Your task to perform on an android device: Open the calendar app, open the side menu, and click the "Day" option Image 0: 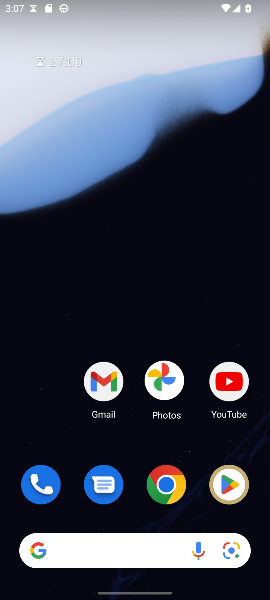
Step 0: press home button
Your task to perform on an android device: Open the calendar app, open the side menu, and click the "Day" option Image 1: 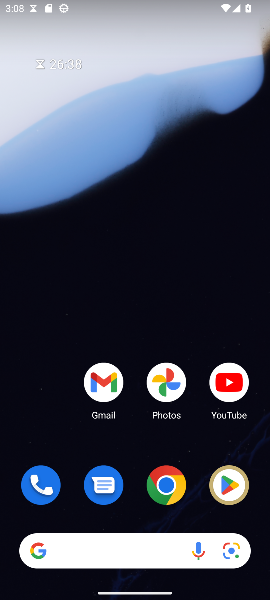
Step 1: drag from (141, 447) to (119, 1)
Your task to perform on an android device: Open the calendar app, open the side menu, and click the "Day" option Image 2: 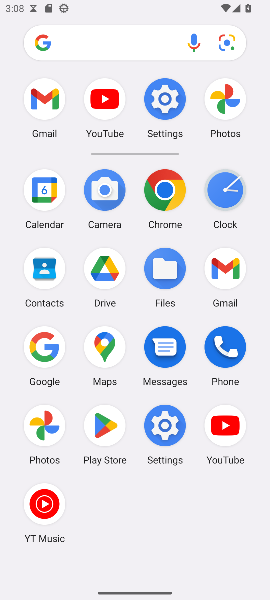
Step 2: click (45, 186)
Your task to perform on an android device: Open the calendar app, open the side menu, and click the "Day" option Image 3: 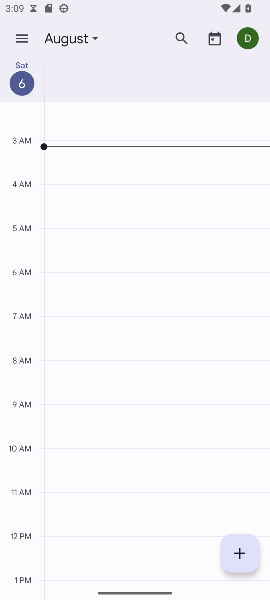
Step 3: click (19, 38)
Your task to perform on an android device: Open the calendar app, open the side menu, and click the "Day" option Image 4: 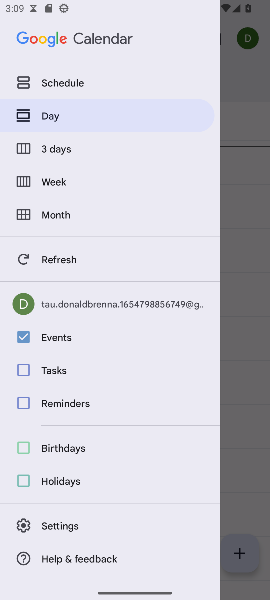
Step 4: click (44, 120)
Your task to perform on an android device: Open the calendar app, open the side menu, and click the "Day" option Image 5: 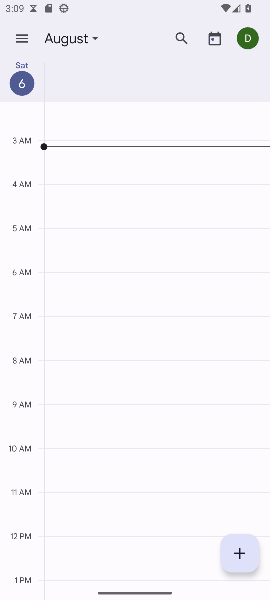
Step 5: task complete